Your task to perform on an android device: add a label to a message in the gmail app Image 0: 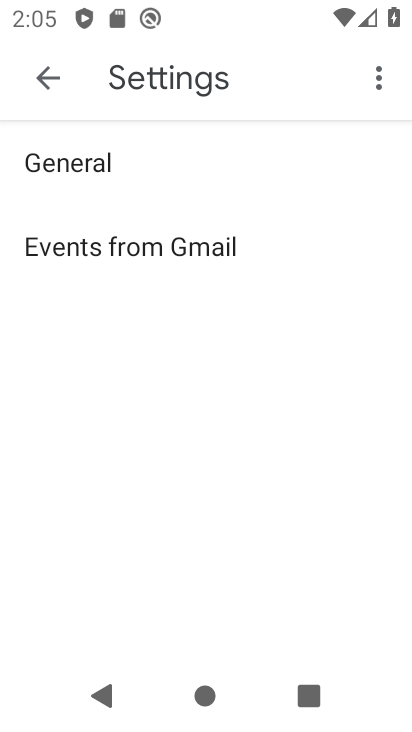
Step 0: press home button
Your task to perform on an android device: add a label to a message in the gmail app Image 1: 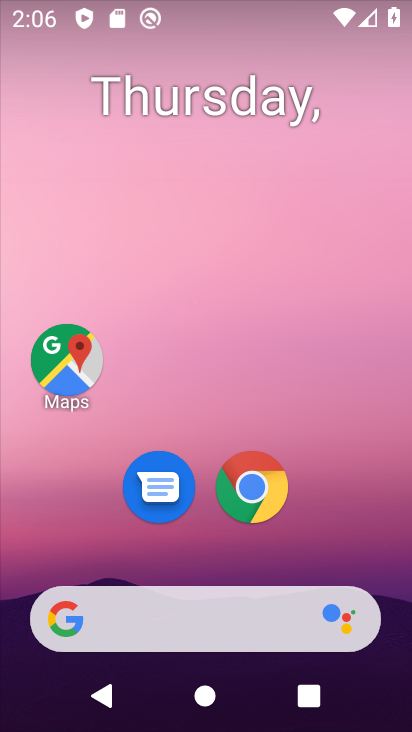
Step 1: drag from (354, 543) to (409, 176)
Your task to perform on an android device: add a label to a message in the gmail app Image 2: 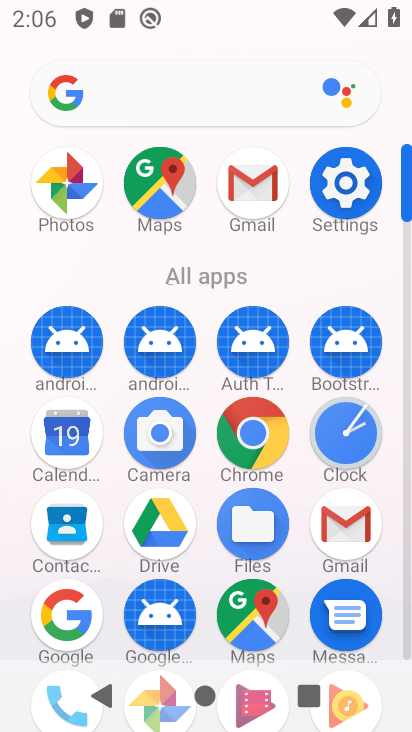
Step 2: click (267, 185)
Your task to perform on an android device: add a label to a message in the gmail app Image 3: 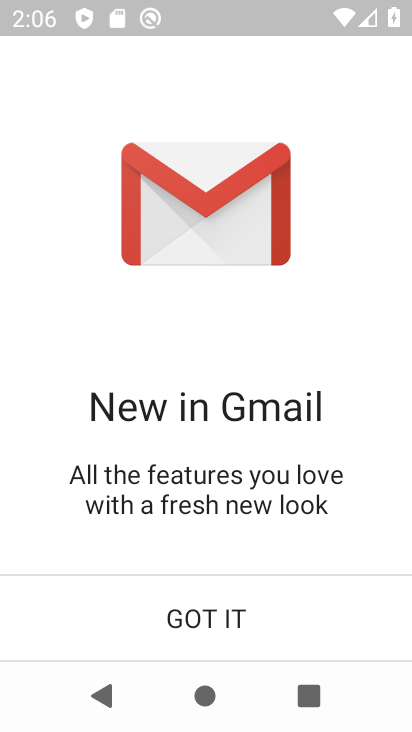
Step 3: click (220, 598)
Your task to perform on an android device: add a label to a message in the gmail app Image 4: 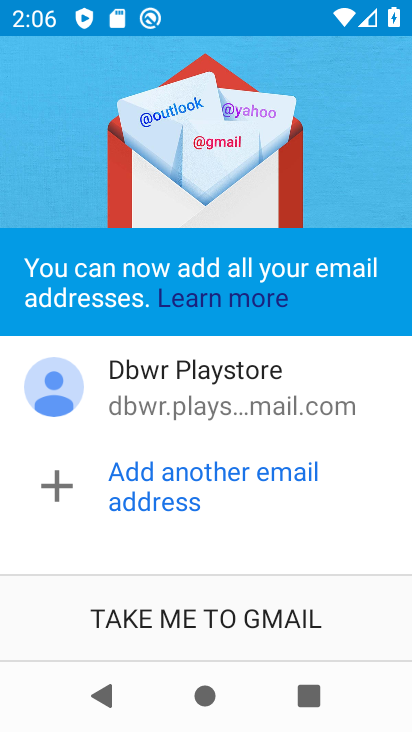
Step 4: drag from (328, 501) to (406, 180)
Your task to perform on an android device: add a label to a message in the gmail app Image 5: 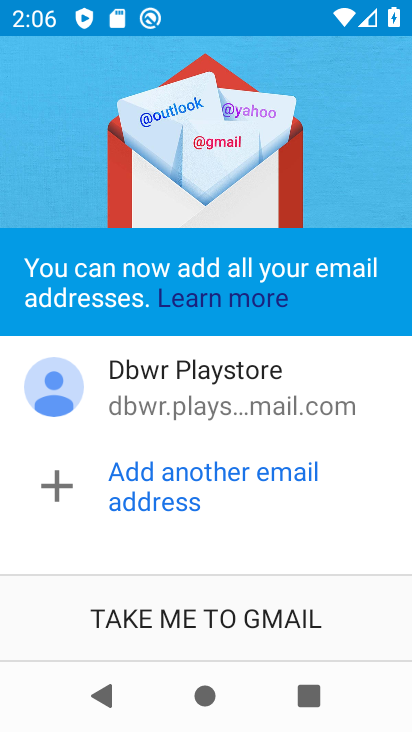
Step 5: click (250, 616)
Your task to perform on an android device: add a label to a message in the gmail app Image 6: 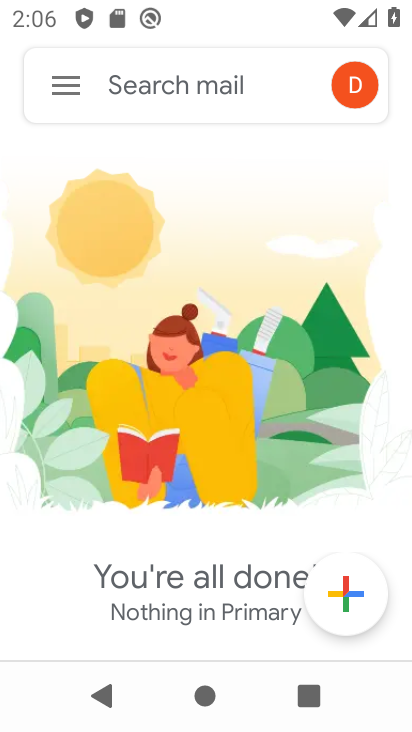
Step 6: click (84, 88)
Your task to perform on an android device: add a label to a message in the gmail app Image 7: 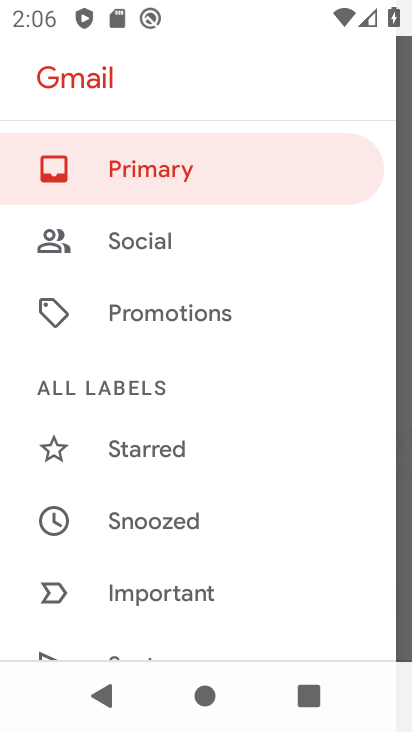
Step 7: drag from (224, 416) to (217, 148)
Your task to perform on an android device: add a label to a message in the gmail app Image 8: 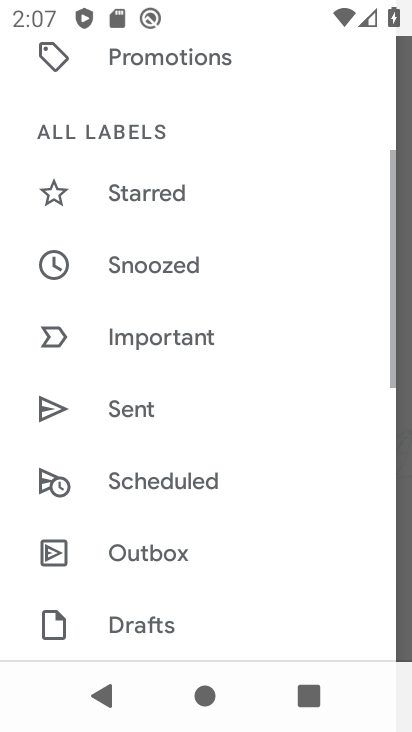
Step 8: drag from (214, 182) to (202, 143)
Your task to perform on an android device: add a label to a message in the gmail app Image 9: 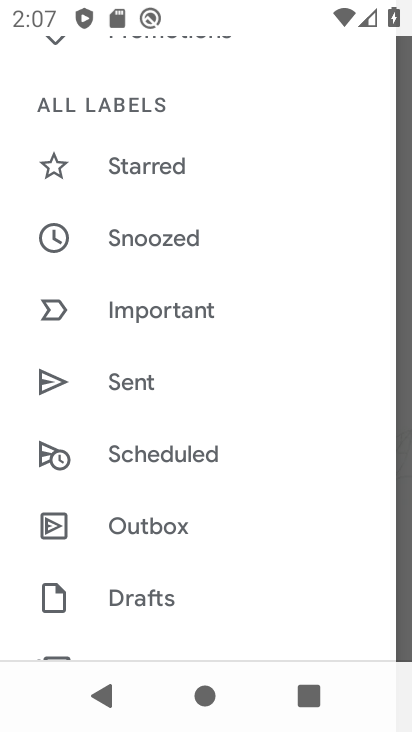
Step 9: drag from (208, 595) to (231, 187)
Your task to perform on an android device: add a label to a message in the gmail app Image 10: 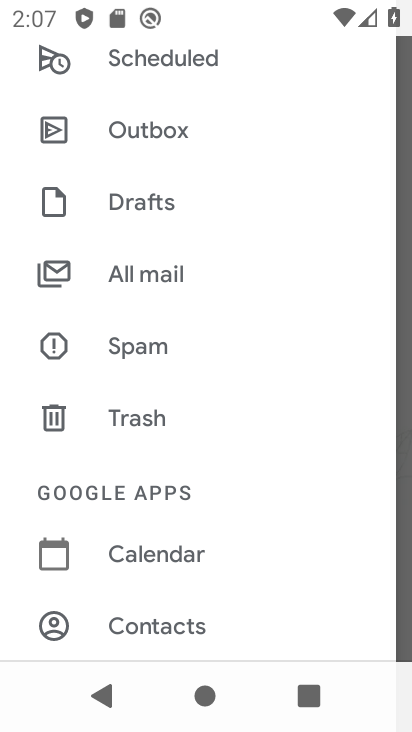
Step 10: click (130, 619)
Your task to perform on an android device: add a label to a message in the gmail app Image 11: 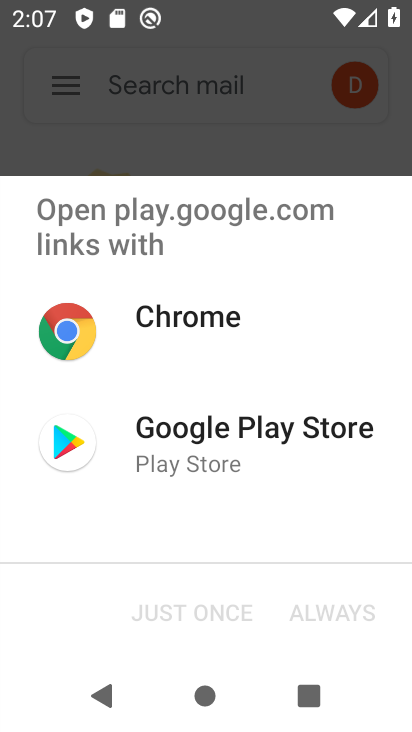
Step 11: press back button
Your task to perform on an android device: add a label to a message in the gmail app Image 12: 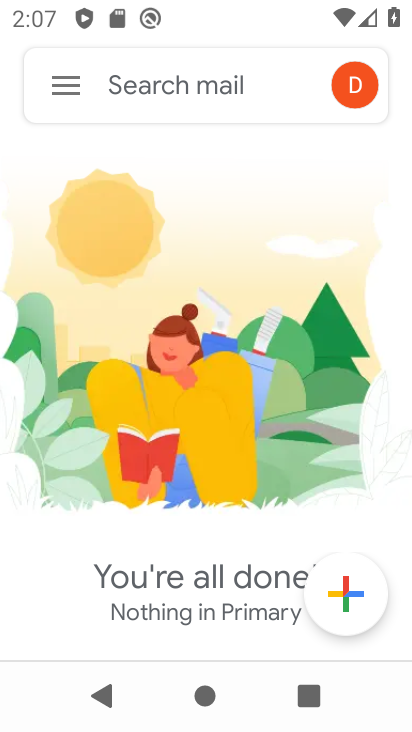
Step 12: click (61, 92)
Your task to perform on an android device: add a label to a message in the gmail app Image 13: 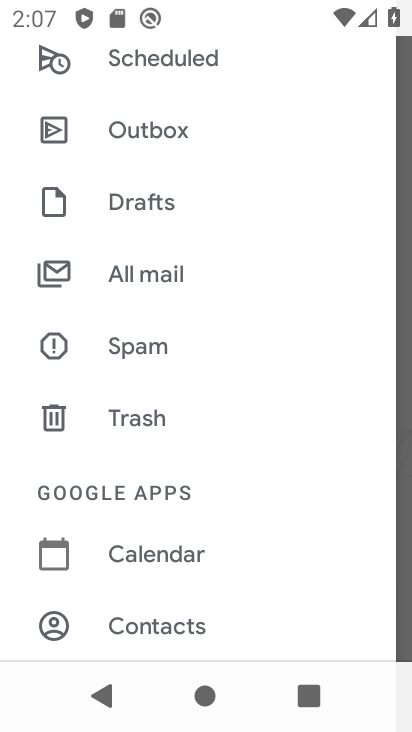
Step 13: drag from (233, 483) to (218, 215)
Your task to perform on an android device: add a label to a message in the gmail app Image 14: 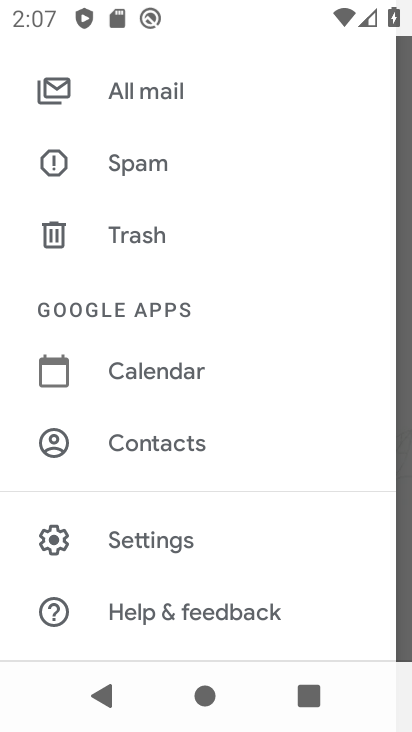
Step 14: click (179, 539)
Your task to perform on an android device: add a label to a message in the gmail app Image 15: 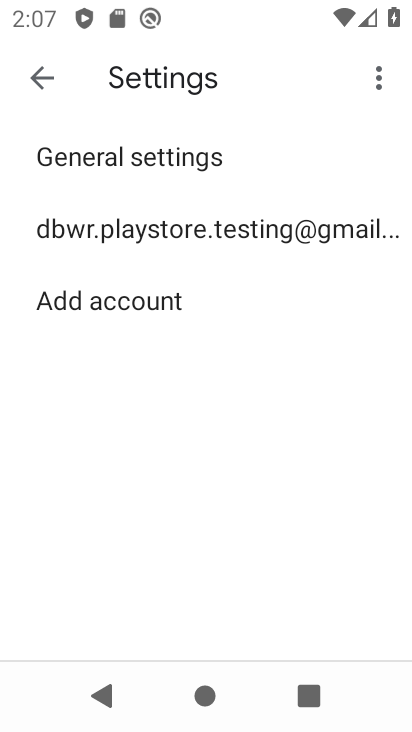
Step 15: click (369, 95)
Your task to perform on an android device: add a label to a message in the gmail app Image 16: 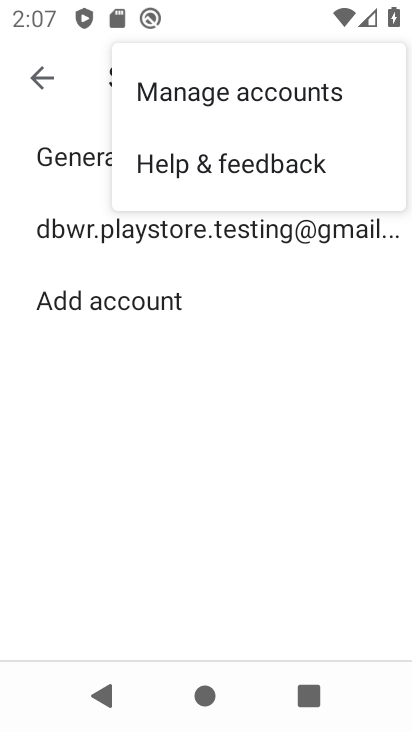
Step 16: task complete